Your task to perform on an android device: Search for 3d printer on AliExpress Image 0: 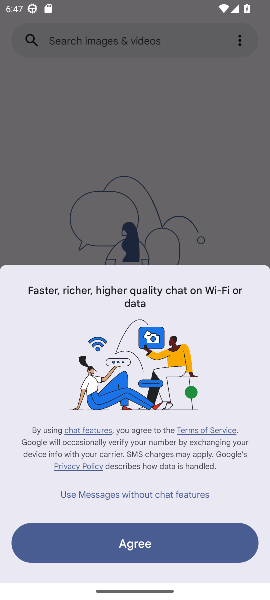
Step 0: press home button
Your task to perform on an android device: Search for 3d printer on AliExpress Image 1: 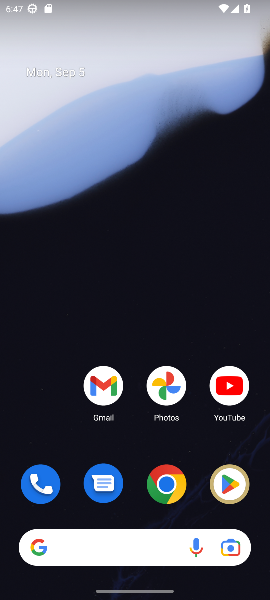
Step 1: drag from (121, 448) to (73, 93)
Your task to perform on an android device: Search for 3d printer on AliExpress Image 2: 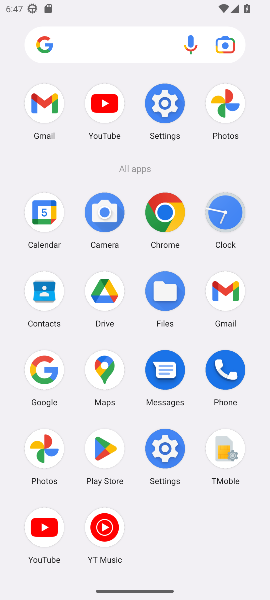
Step 2: click (154, 217)
Your task to perform on an android device: Search for 3d printer on AliExpress Image 3: 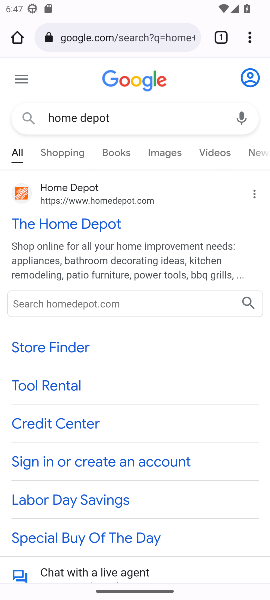
Step 3: click (139, 118)
Your task to perform on an android device: Search for 3d printer on AliExpress Image 4: 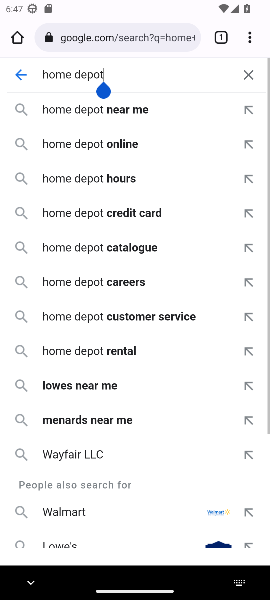
Step 4: click (244, 71)
Your task to perform on an android device: Search for 3d printer on AliExpress Image 5: 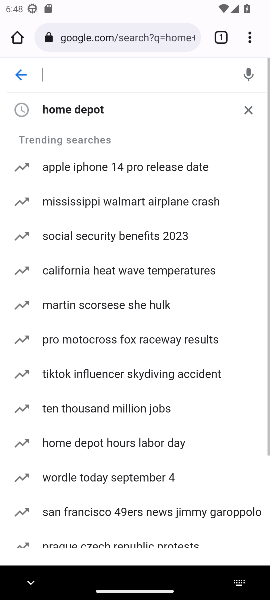
Step 5: click (76, 38)
Your task to perform on an android device: Search for 3d printer on AliExpress Image 6: 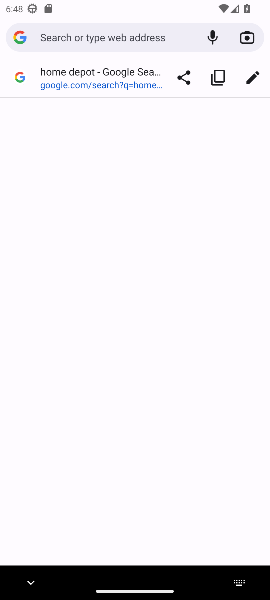
Step 6: type " AliExpress"
Your task to perform on an android device: Search for 3d printer on AliExpress Image 7: 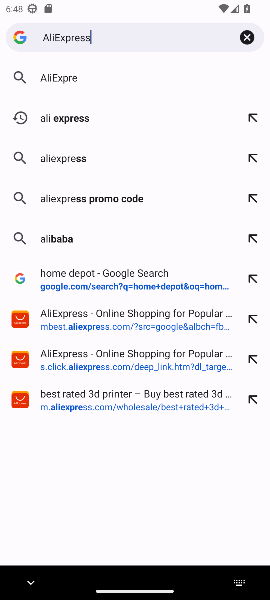
Step 7: press enter
Your task to perform on an android device: Search for 3d printer on AliExpress Image 8: 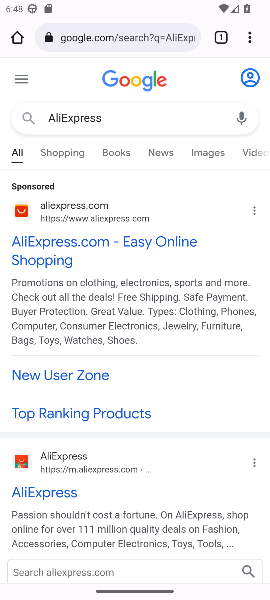
Step 8: click (31, 256)
Your task to perform on an android device: Search for 3d printer on AliExpress Image 9: 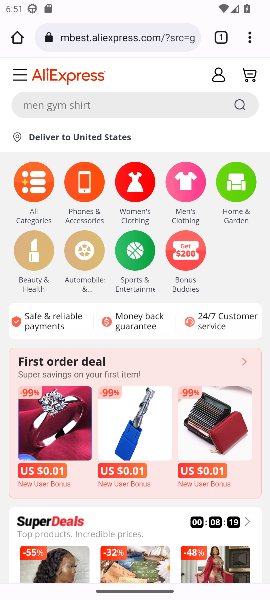
Step 9: task complete